Your task to perform on an android device: View the shopping cart on amazon. Search for usb-a on amazon, select the first entry, add it to the cart, then select checkout. Image 0: 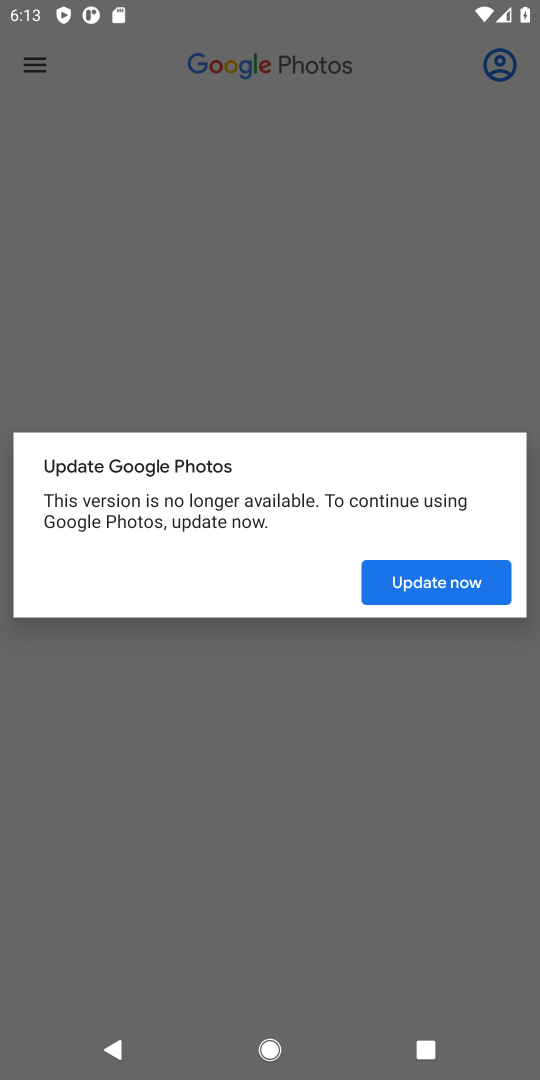
Step 0: press home button
Your task to perform on an android device: View the shopping cart on amazon. Search for usb-a on amazon, select the first entry, add it to the cart, then select checkout. Image 1: 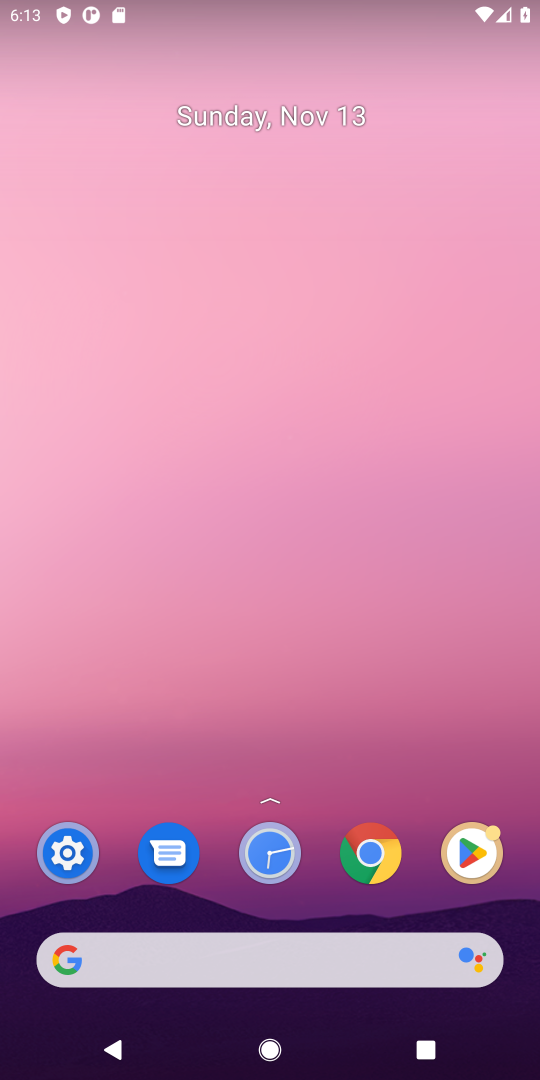
Step 1: click (93, 952)
Your task to perform on an android device: View the shopping cart on amazon. Search for usb-a on amazon, select the first entry, add it to the cart, then select checkout. Image 2: 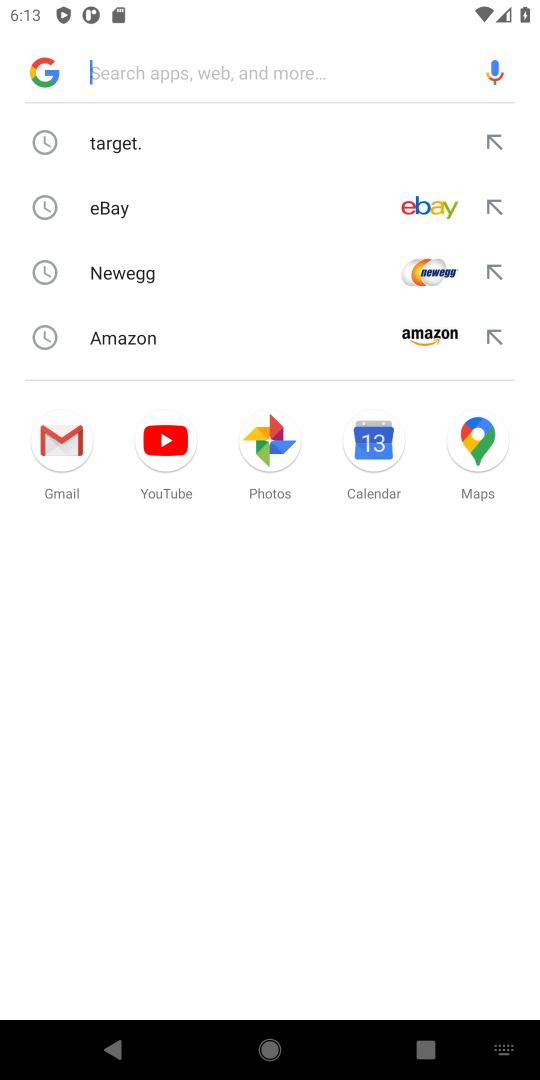
Step 2: type " amazon"
Your task to perform on an android device: View the shopping cart on amazon. Search for usb-a on amazon, select the first entry, add it to the cart, then select checkout. Image 3: 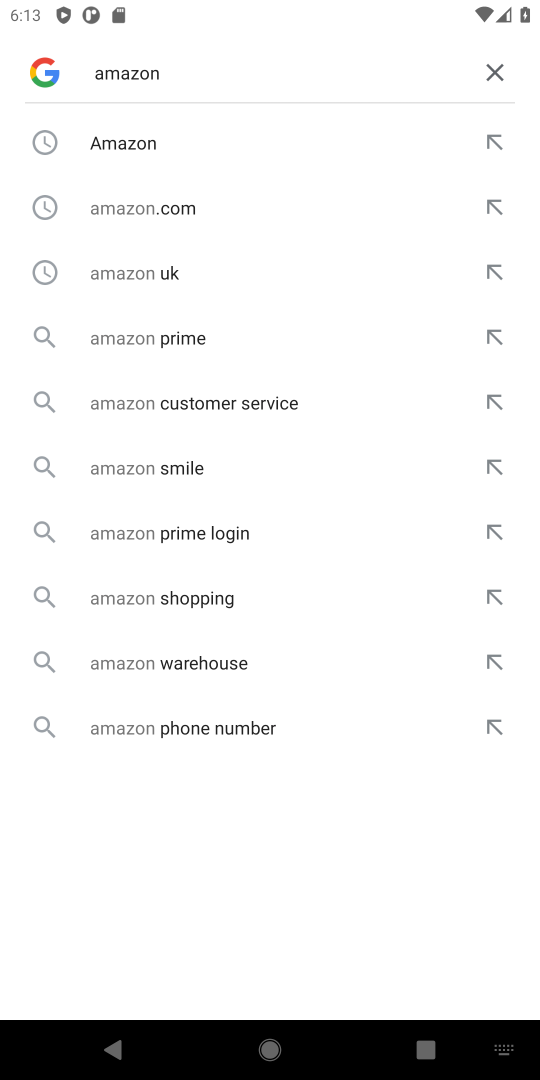
Step 3: press enter
Your task to perform on an android device: View the shopping cart on amazon. Search for usb-a on amazon, select the first entry, add it to the cart, then select checkout. Image 4: 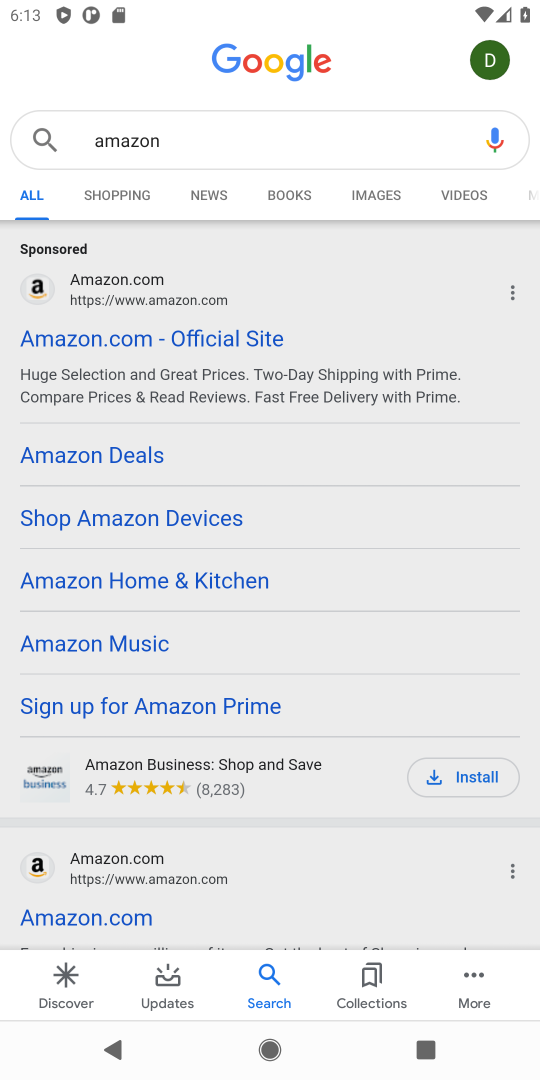
Step 4: click (128, 340)
Your task to perform on an android device: View the shopping cart on amazon. Search for usb-a on amazon, select the first entry, add it to the cart, then select checkout. Image 5: 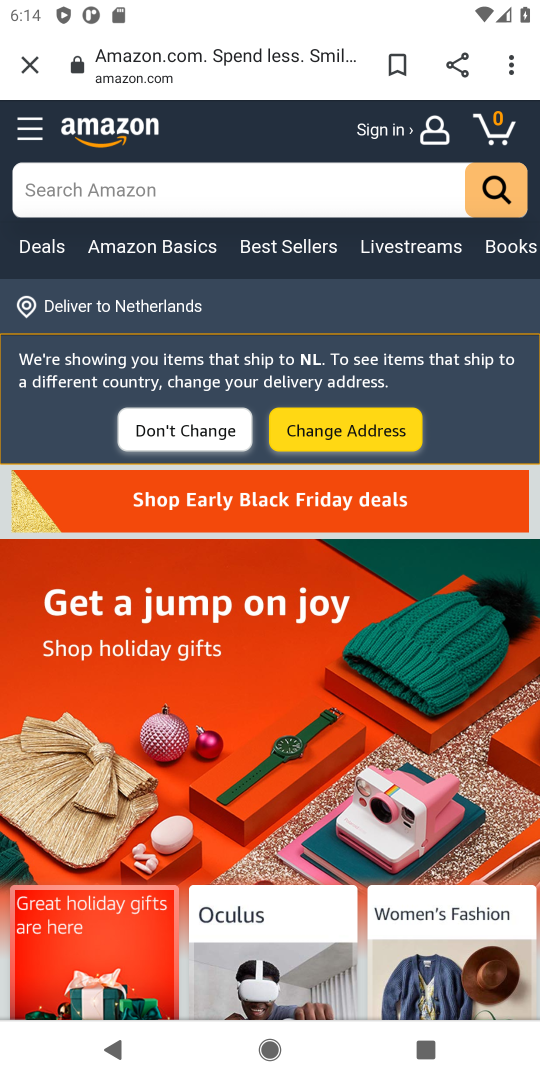
Step 5: click (498, 123)
Your task to perform on an android device: View the shopping cart on amazon. Search for usb-a on amazon, select the first entry, add it to the cart, then select checkout. Image 6: 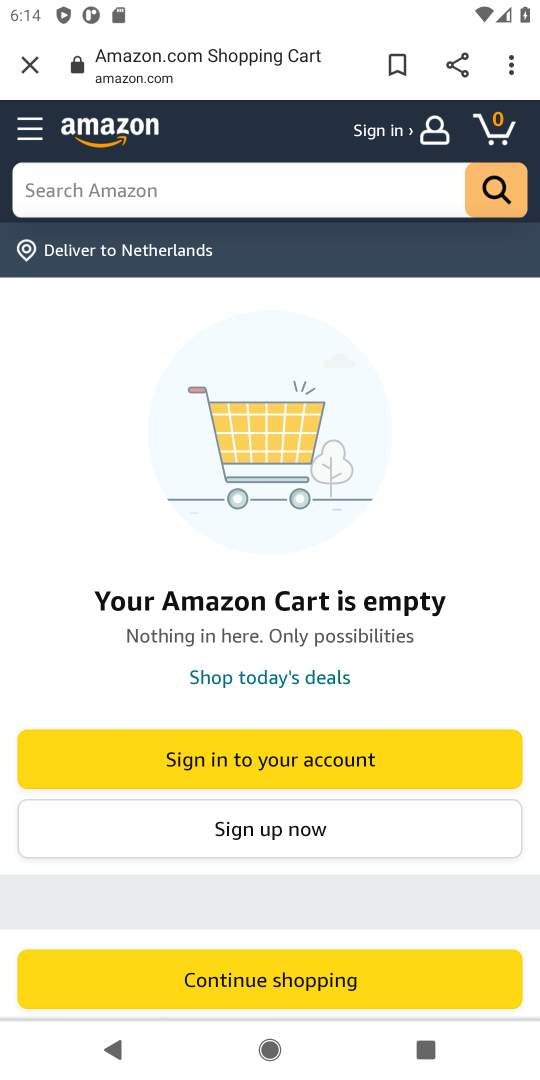
Step 6: click (103, 195)
Your task to perform on an android device: View the shopping cart on amazon. Search for usb-a on amazon, select the first entry, add it to the cart, then select checkout. Image 7: 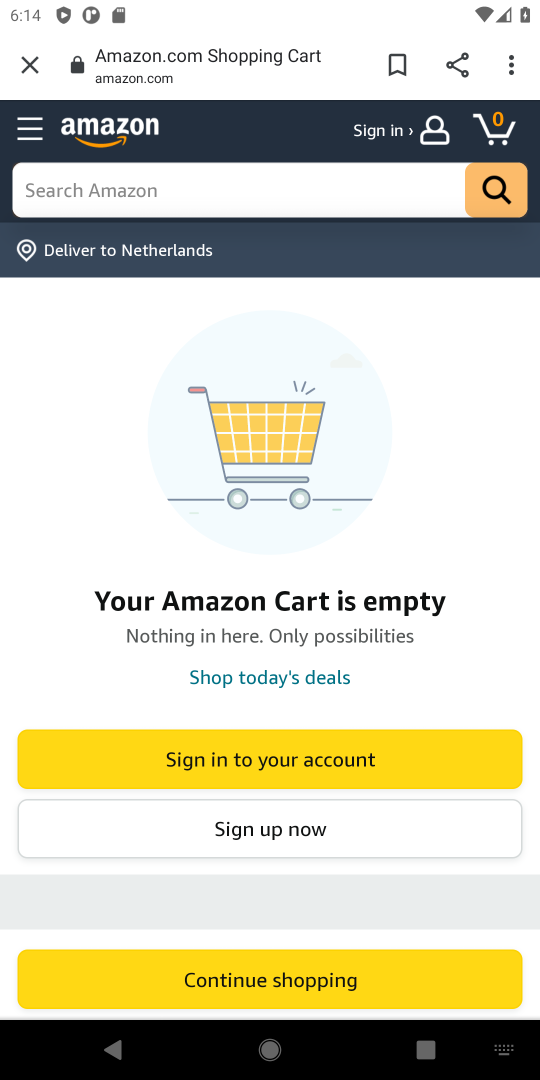
Step 7: type "usb-a"
Your task to perform on an android device: View the shopping cart on amazon. Search for usb-a on amazon, select the first entry, add it to the cart, then select checkout. Image 8: 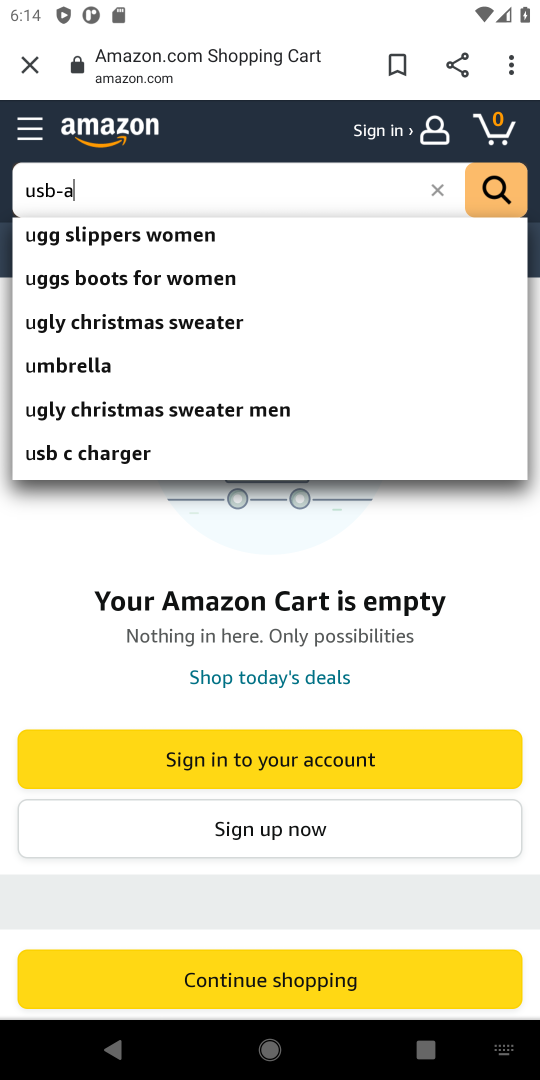
Step 8: press enter
Your task to perform on an android device: View the shopping cart on amazon. Search for usb-a on amazon, select the first entry, add it to the cart, then select checkout. Image 9: 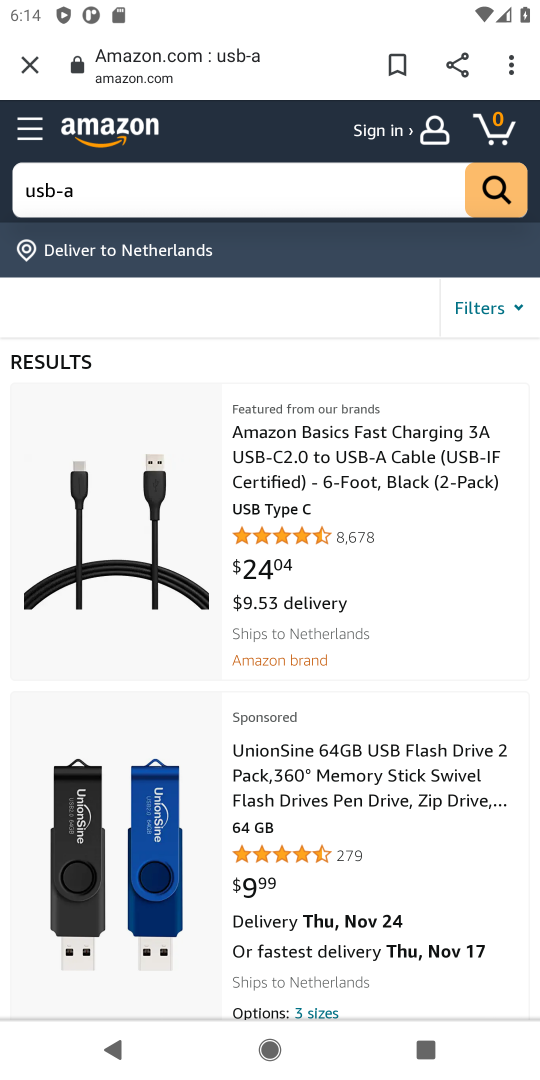
Step 9: click (389, 459)
Your task to perform on an android device: View the shopping cart on amazon. Search for usb-a on amazon, select the first entry, add it to the cart, then select checkout. Image 10: 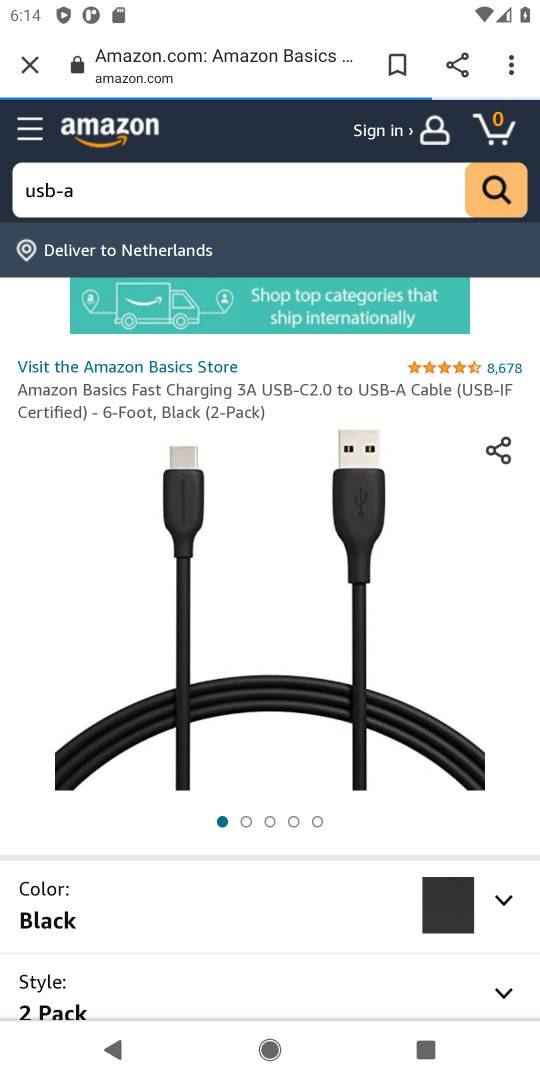
Step 10: drag from (306, 840) to (306, 564)
Your task to perform on an android device: View the shopping cart on amazon. Search for usb-a on amazon, select the first entry, add it to the cart, then select checkout. Image 11: 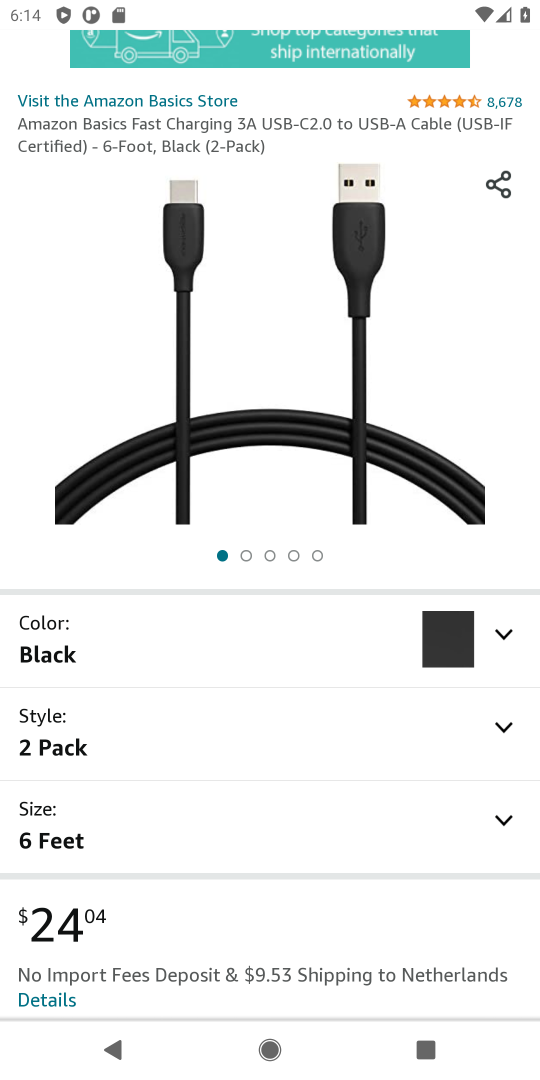
Step 11: drag from (285, 913) to (282, 461)
Your task to perform on an android device: View the shopping cart on amazon. Search for usb-a on amazon, select the first entry, add it to the cart, then select checkout. Image 12: 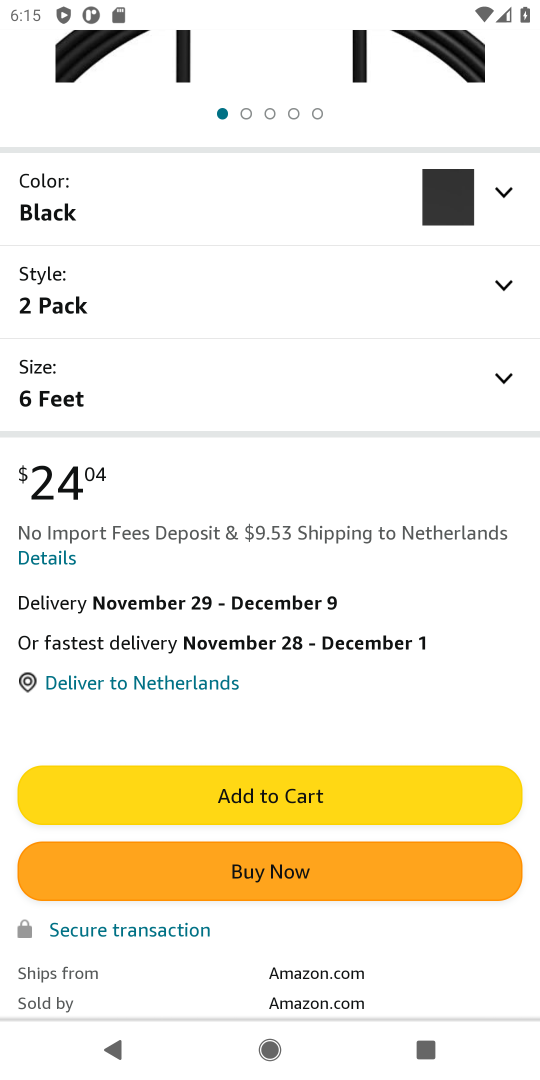
Step 12: click (335, 798)
Your task to perform on an android device: View the shopping cart on amazon. Search for usb-a on amazon, select the first entry, add it to the cart, then select checkout. Image 13: 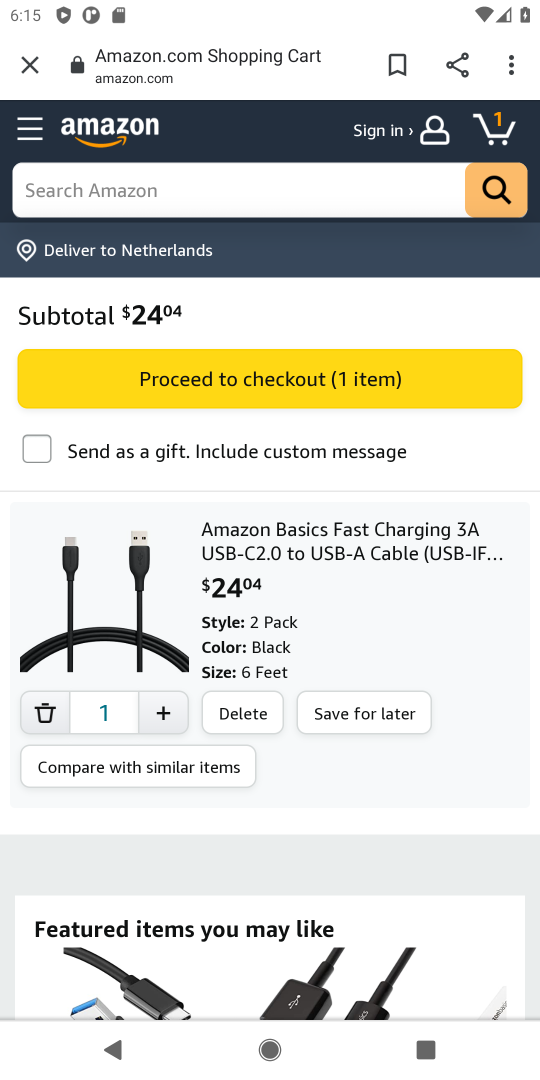
Step 13: click (305, 380)
Your task to perform on an android device: View the shopping cart on amazon. Search for usb-a on amazon, select the first entry, add it to the cart, then select checkout. Image 14: 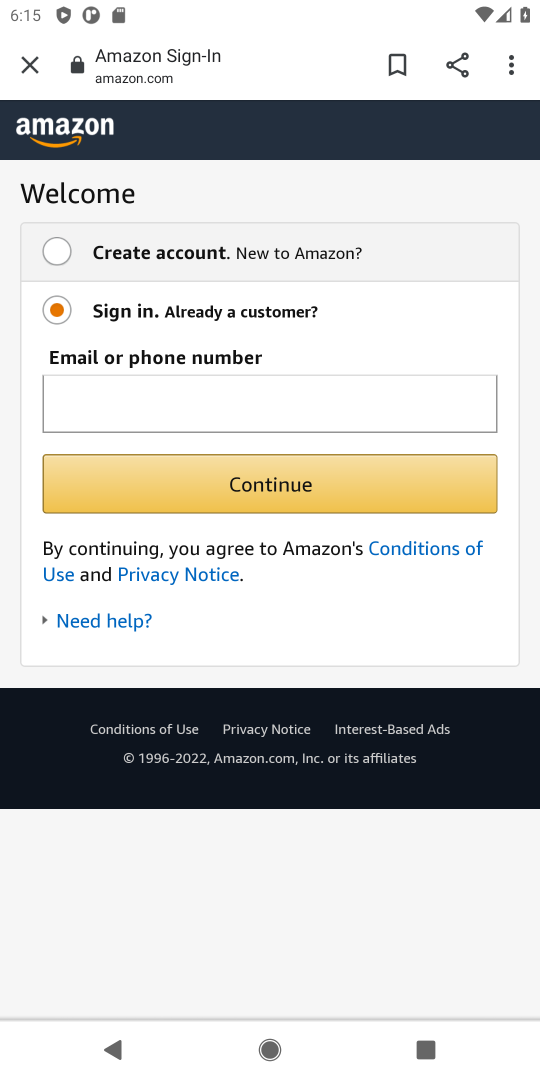
Step 14: task complete